Your task to perform on an android device: Find coffee shops on Maps Image 0: 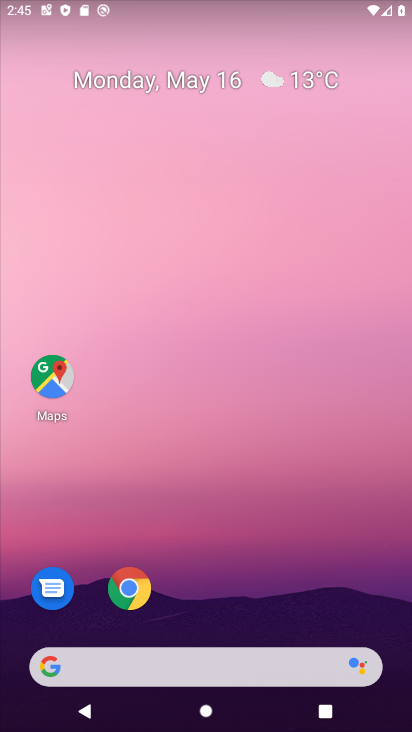
Step 0: drag from (282, 675) to (273, 6)
Your task to perform on an android device: Find coffee shops on Maps Image 1: 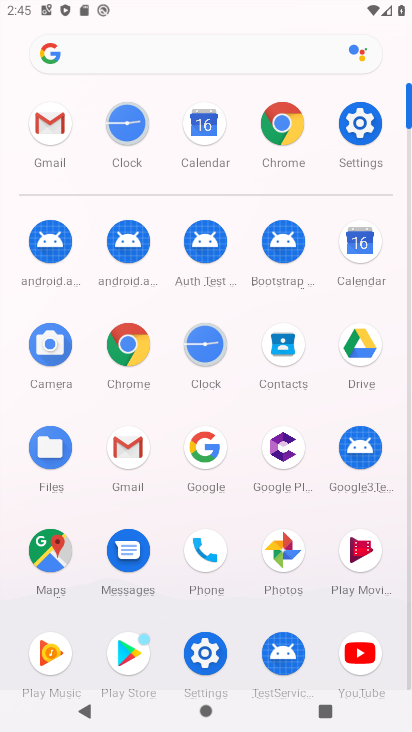
Step 1: click (55, 543)
Your task to perform on an android device: Find coffee shops on Maps Image 2: 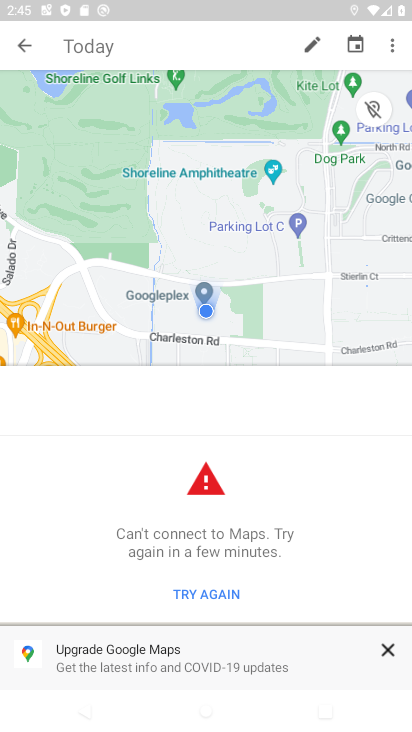
Step 2: press back button
Your task to perform on an android device: Find coffee shops on Maps Image 3: 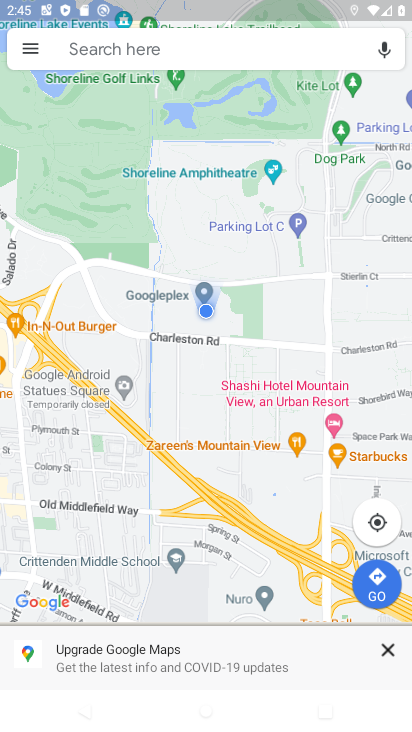
Step 3: click (195, 53)
Your task to perform on an android device: Find coffee shops on Maps Image 4: 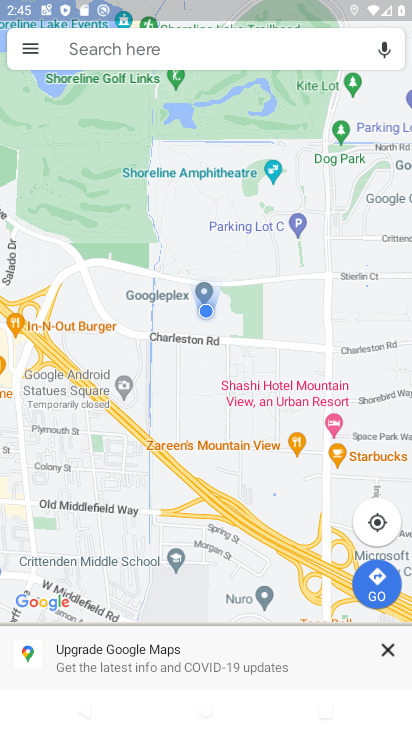
Step 4: click (195, 53)
Your task to perform on an android device: Find coffee shops on Maps Image 5: 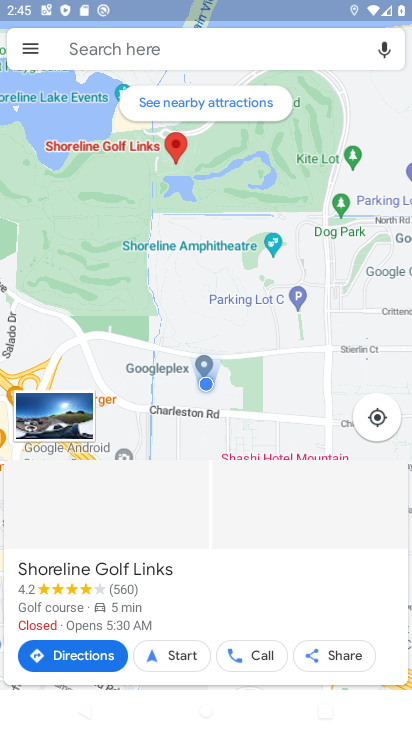
Step 5: type "coffee shops"
Your task to perform on an android device: Find coffee shops on Maps Image 6: 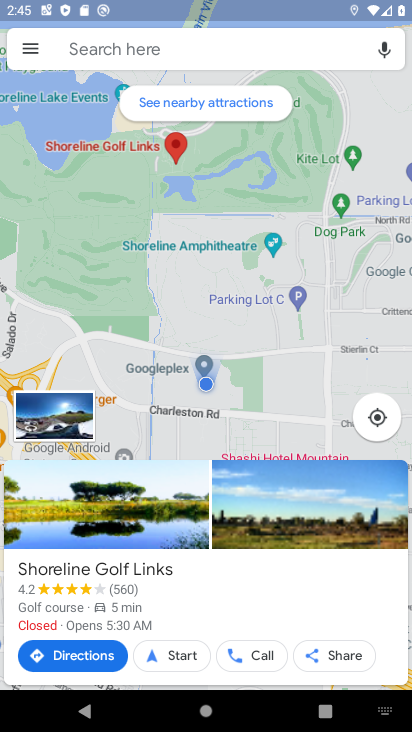
Step 6: task complete